Your task to perform on an android device: open wifi settings Image 0: 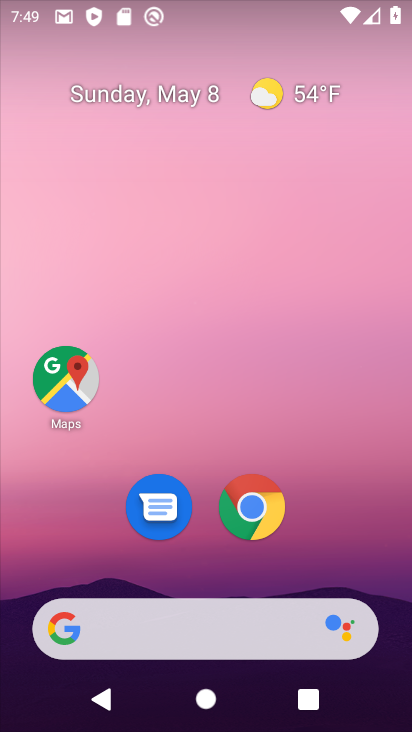
Step 0: drag from (340, 567) to (273, 130)
Your task to perform on an android device: open wifi settings Image 1: 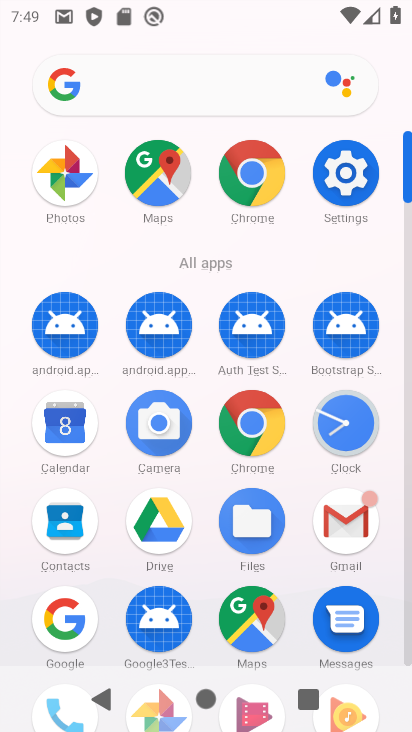
Step 1: click (335, 175)
Your task to perform on an android device: open wifi settings Image 2: 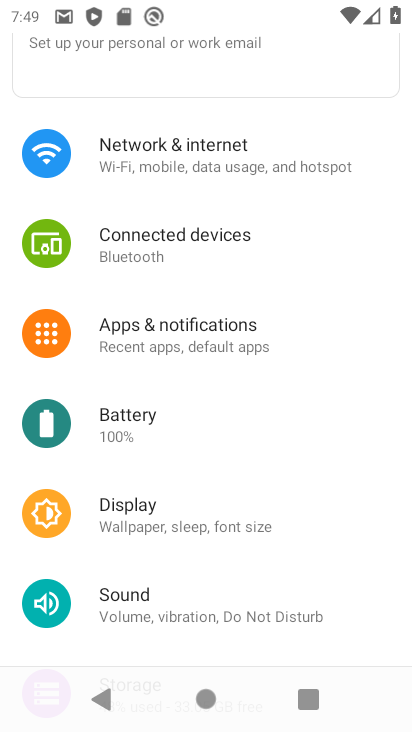
Step 2: click (215, 171)
Your task to perform on an android device: open wifi settings Image 3: 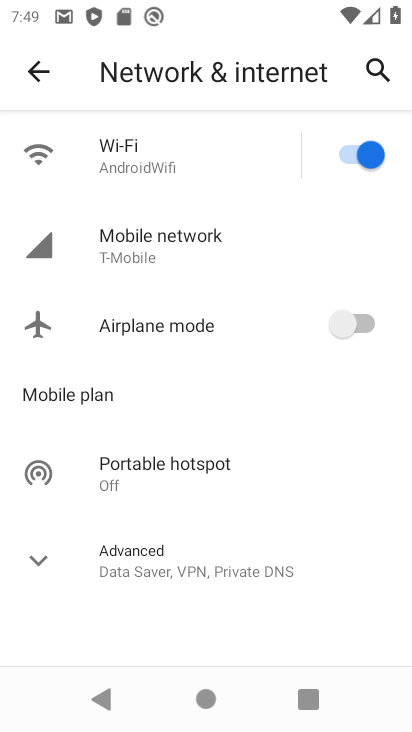
Step 3: click (70, 155)
Your task to perform on an android device: open wifi settings Image 4: 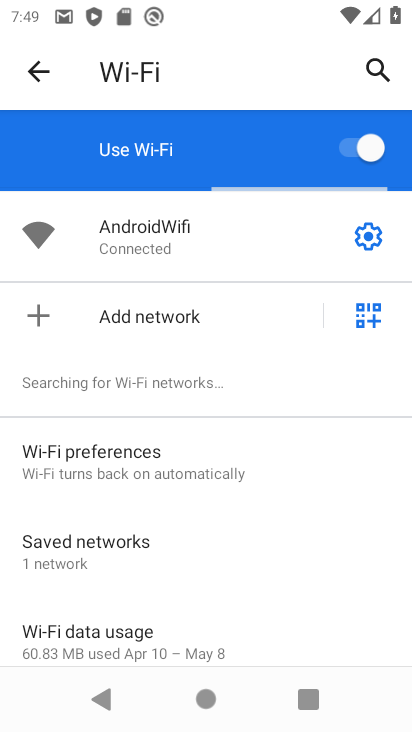
Step 4: task complete